Your task to perform on an android device: turn pop-ups on in chrome Image 0: 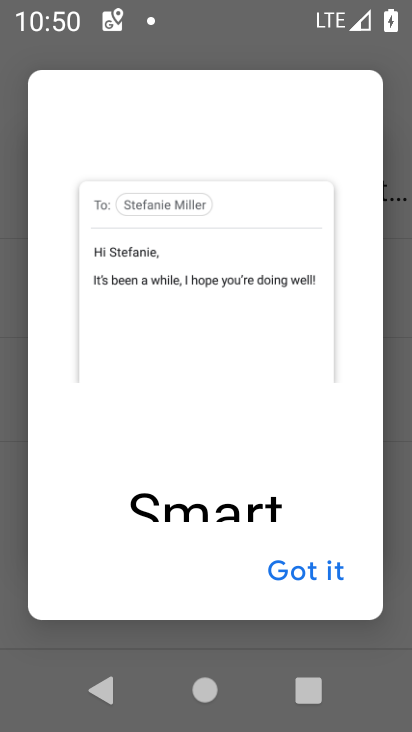
Step 0: press home button
Your task to perform on an android device: turn pop-ups on in chrome Image 1: 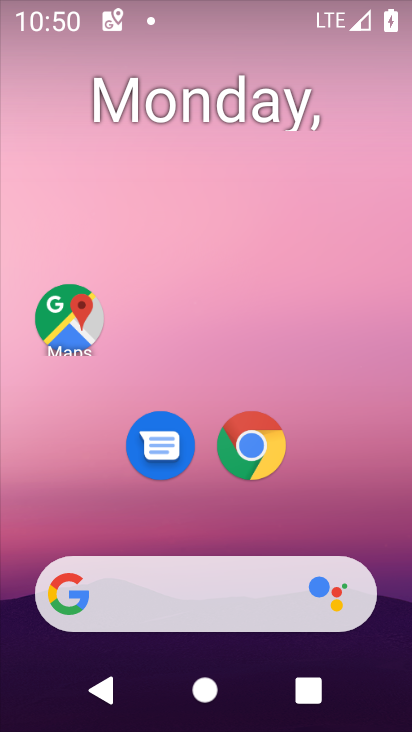
Step 1: click (252, 445)
Your task to perform on an android device: turn pop-ups on in chrome Image 2: 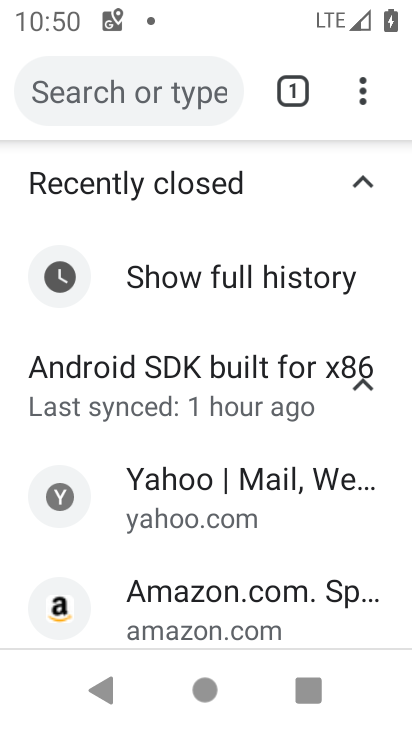
Step 2: click (357, 86)
Your task to perform on an android device: turn pop-ups on in chrome Image 3: 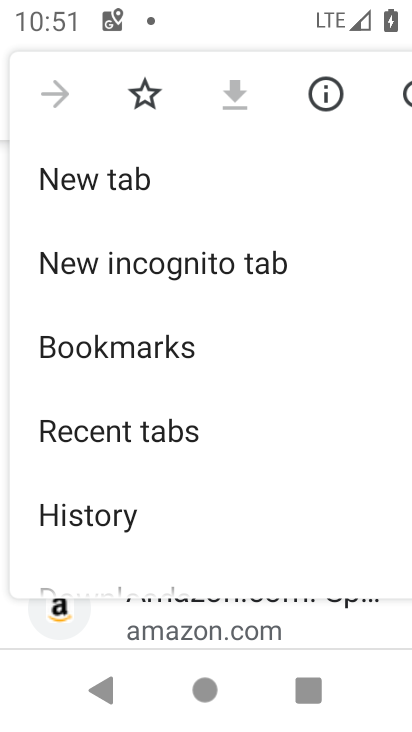
Step 3: drag from (265, 542) to (211, 53)
Your task to perform on an android device: turn pop-ups on in chrome Image 4: 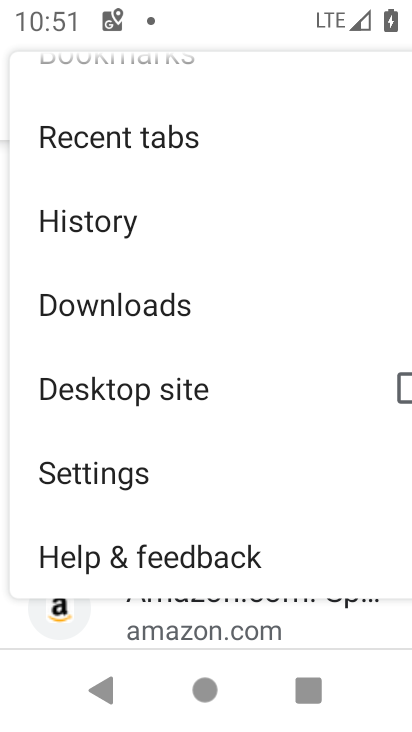
Step 4: click (133, 485)
Your task to perform on an android device: turn pop-ups on in chrome Image 5: 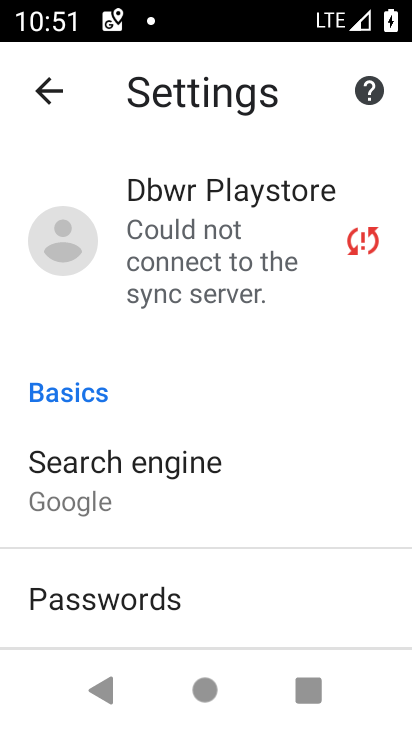
Step 5: drag from (222, 526) to (398, 115)
Your task to perform on an android device: turn pop-ups on in chrome Image 6: 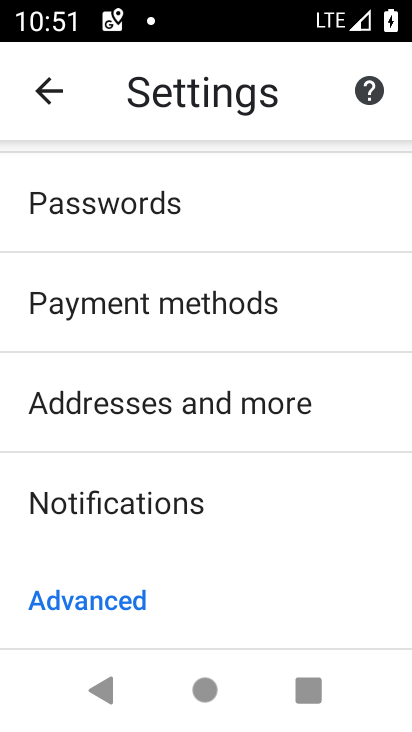
Step 6: drag from (181, 556) to (256, 33)
Your task to perform on an android device: turn pop-ups on in chrome Image 7: 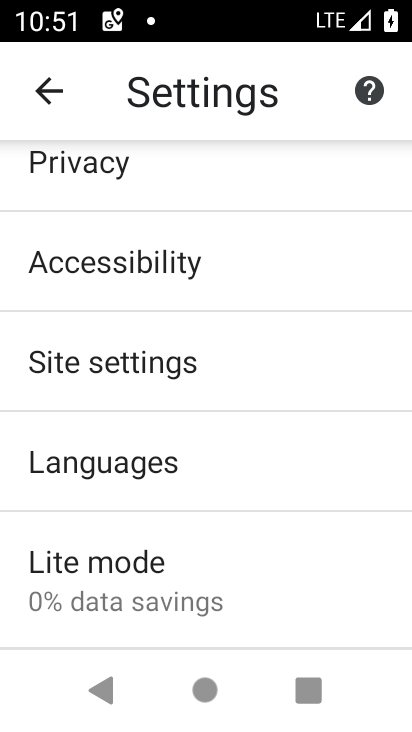
Step 7: click (183, 355)
Your task to perform on an android device: turn pop-ups on in chrome Image 8: 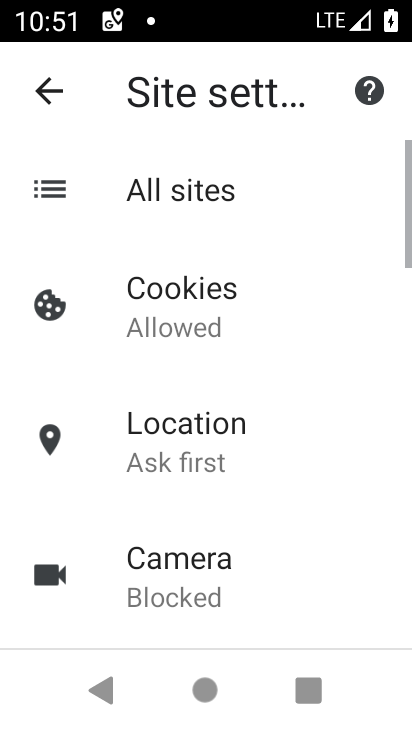
Step 8: drag from (218, 569) to (302, 29)
Your task to perform on an android device: turn pop-ups on in chrome Image 9: 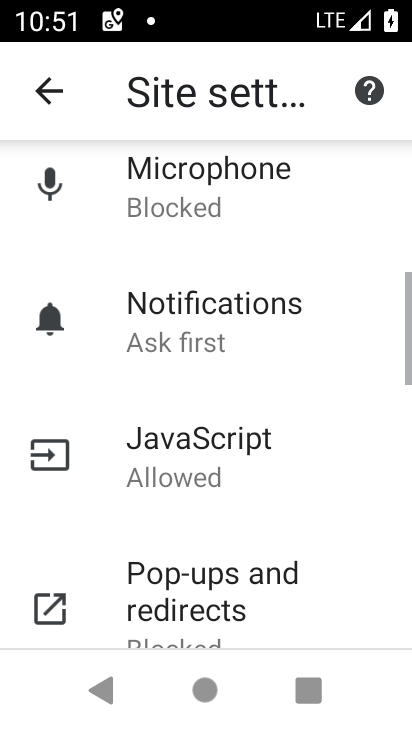
Step 9: click (240, 597)
Your task to perform on an android device: turn pop-ups on in chrome Image 10: 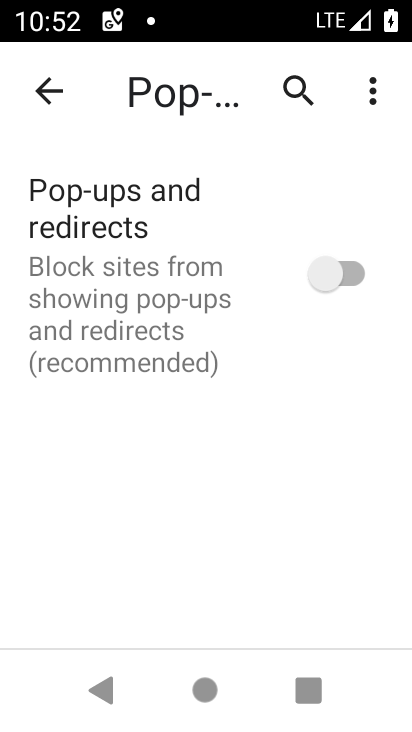
Step 10: click (346, 269)
Your task to perform on an android device: turn pop-ups on in chrome Image 11: 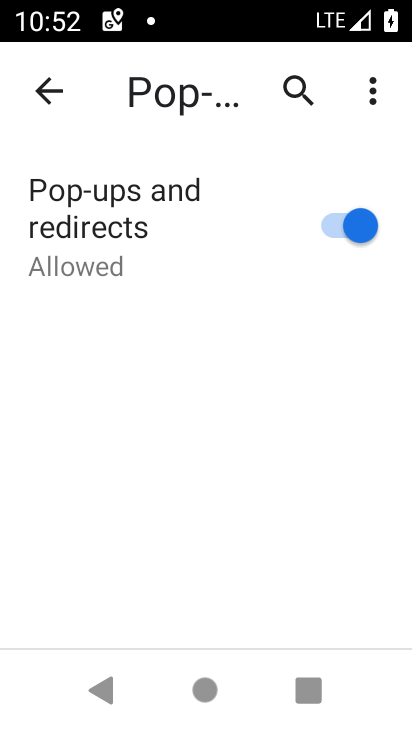
Step 11: task complete